Your task to perform on an android device: stop showing notifications on the lock screen Image 0: 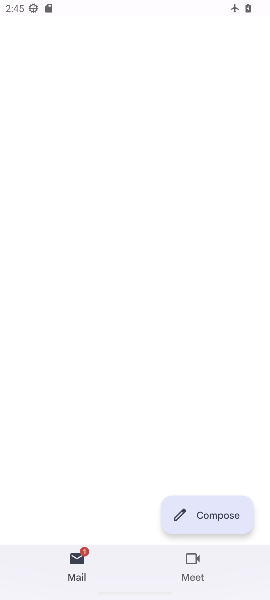
Step 0: press home button
Your task to perform on an android device: stop showing notifications on the lock screen Image 1: 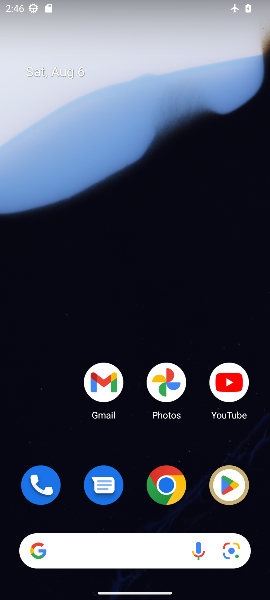
Step 1: drag from (127, 450) to (162, 2)
Your task to perform on an android device: stop showing notifications on the lock screen Image 2: 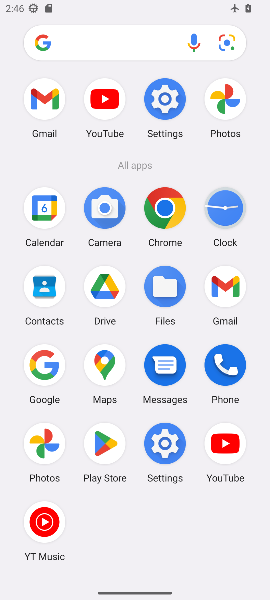
Step 2: click (155, 91)
Your task to perform on an android device: stop showing notifications on the lock screen Image 3: 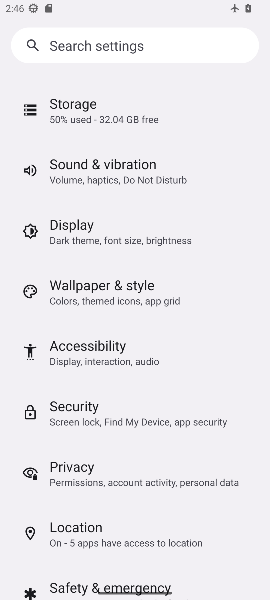
Step 3: drag from (95, 149) to (80, 533)
Your task to perform on an android device: stop showing notifications on the lock screen Image 4: 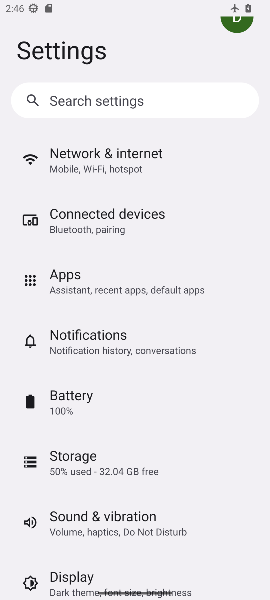
Step 4: click (130, 339)
Your task to perform on an android device: stop showing notifications on the lock screen Image 5: 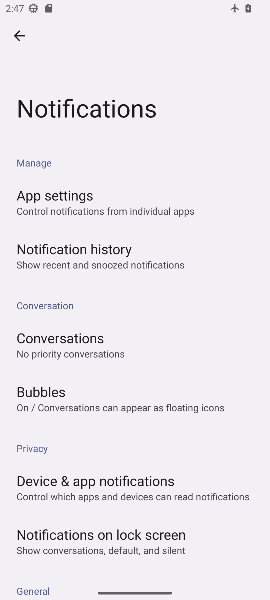
Step 5: click (175, 536)
Your task to perform on an android device: stop showing notifications on the lock screen Image 6: 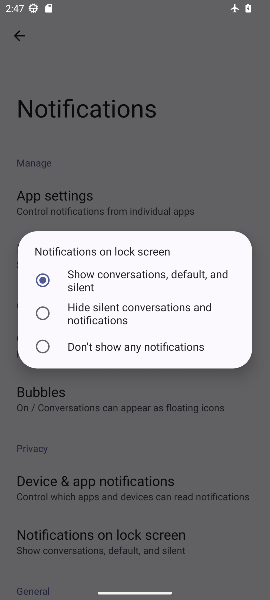
Step 6: click (39, 314)
Your task to perform on an android device: stop showing notifications on the lock screen Image 7: 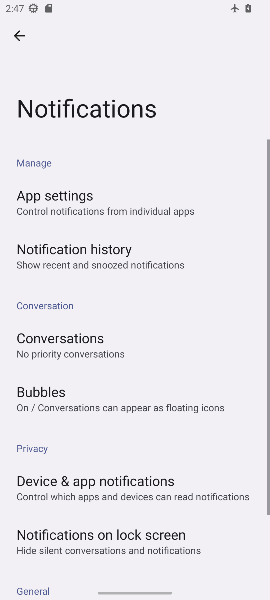
Step 7: task complete